Your task to perform on an android device: toggle sleep mode Image 0: 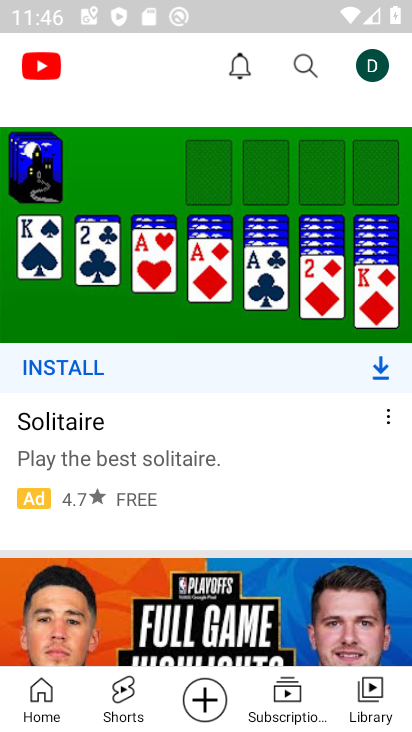
Step 0: press home button
Your task to perform on an android device: toggle sleep mode Image 1: 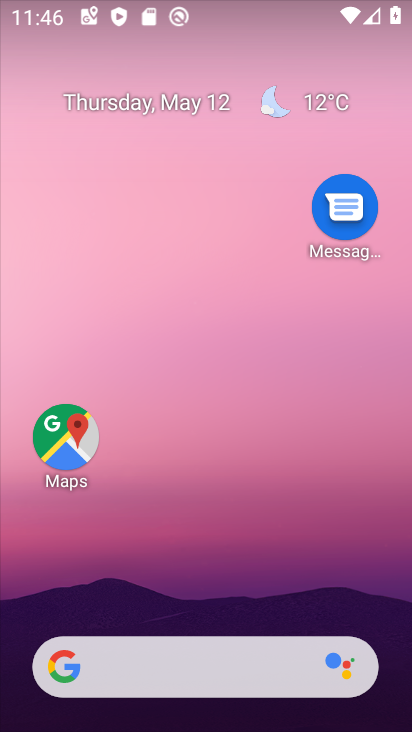
Step 1: drag from (364, 555) to (306, 134)
Your task to perform on an android device: toggle sleep mode Image 2: 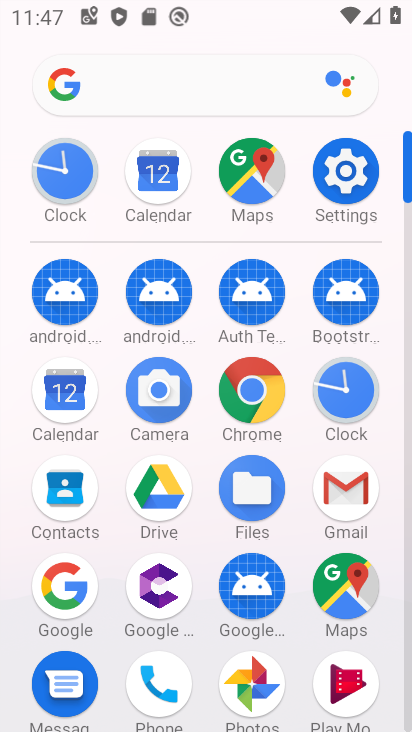
Step 2: click (351, 179)
Your task to perform on an android device: toggle sleep mode Image 3: 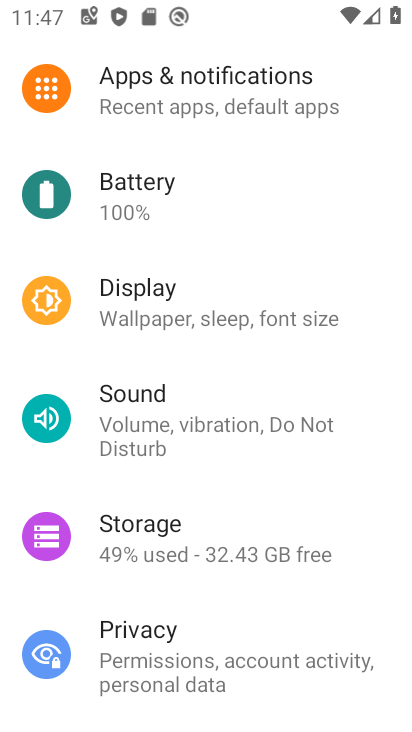
Step 3: drag from (170, 157) to (262, 565)
Your task to perform on an android device: toggle sleep mode Image 4: 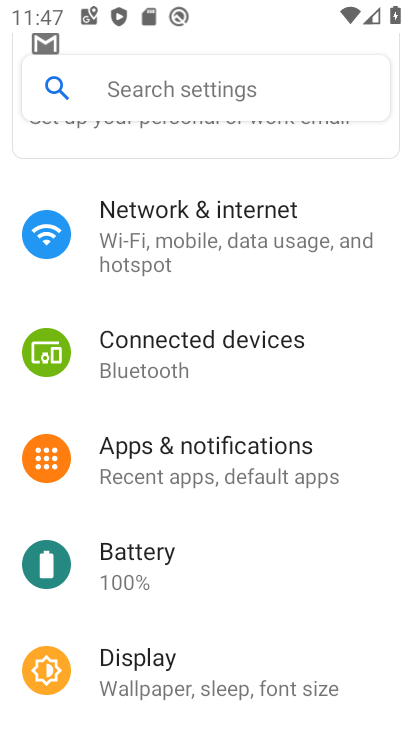
Step 4: drag from (208, 581) to (238, 259)
Your task to perform on an android device: toggle sleep mode Image 5: 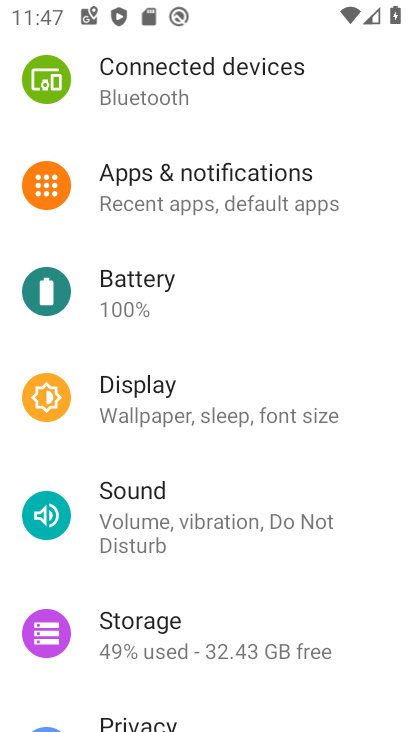
Step 5: drag from (164, 585) to (158, 283)
Your task to perform on an android device: toggle sleep mode Image 6: 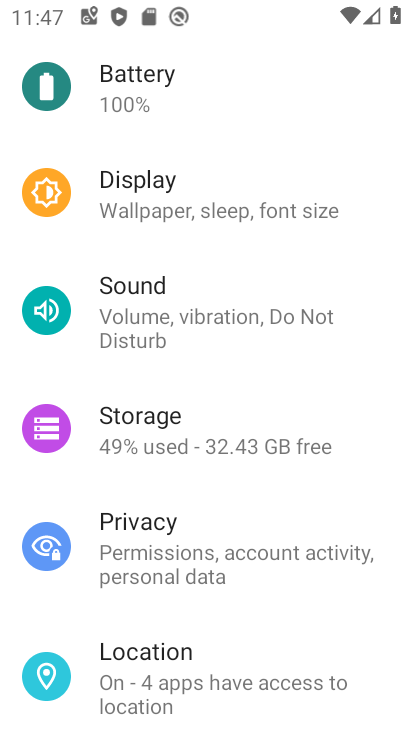
Step 6: click (148, 151)
Your task to perform on an android device: toggle sleep mode Image 7: 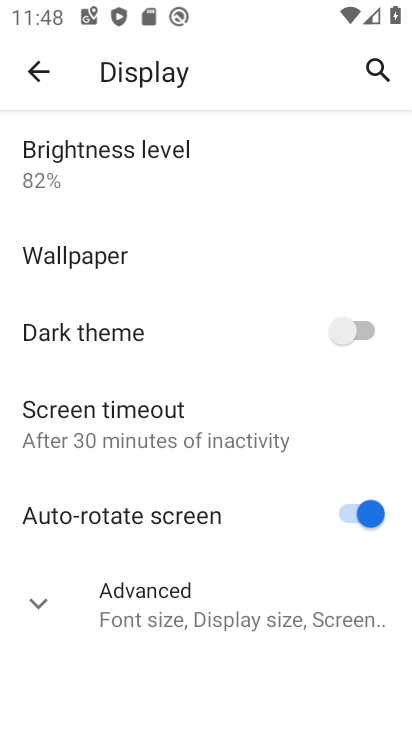
Step 7: task complete